Your task to perform on an android device: turn on data saver in the chrome app Image 0: 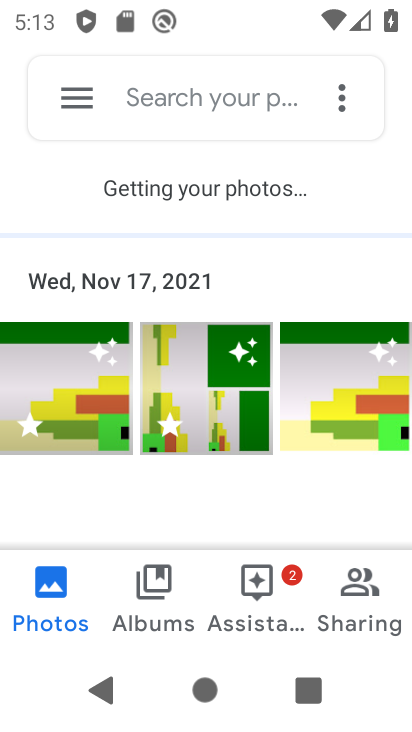
Step 0: press home button
Your task to perform on an android device: turn on data saver in the chrome app Image 1: 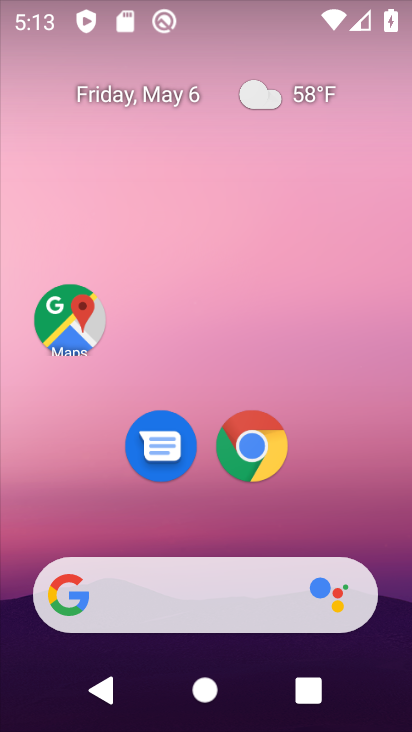
Step 1: click (256, 436)
Your task to perform on an android device: turn on data saver in the chrome app Image 2: 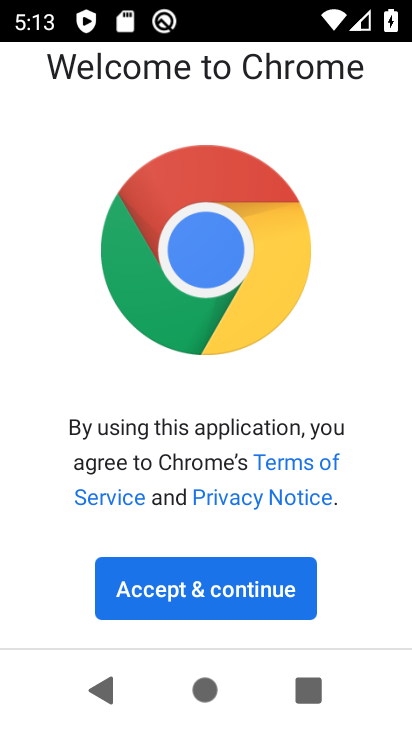
Step 2: click (158, 588)
Your task to perform on an android device: turn on data saver in the chrome app Image 3: 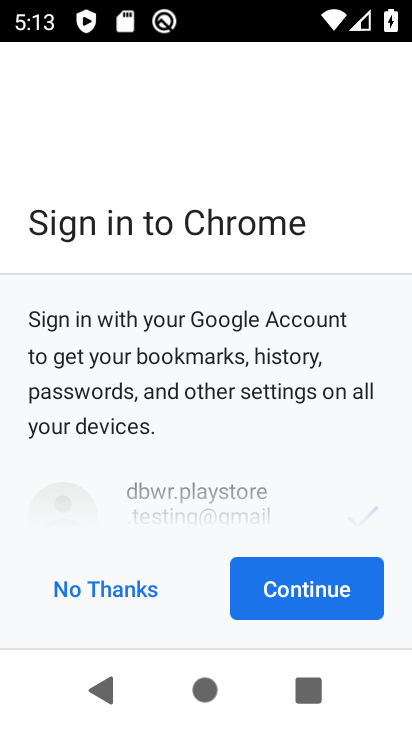
Step 3: click (317, 588)
Your task to perform on an android device: turn on data saver in the chrome app Image 4: 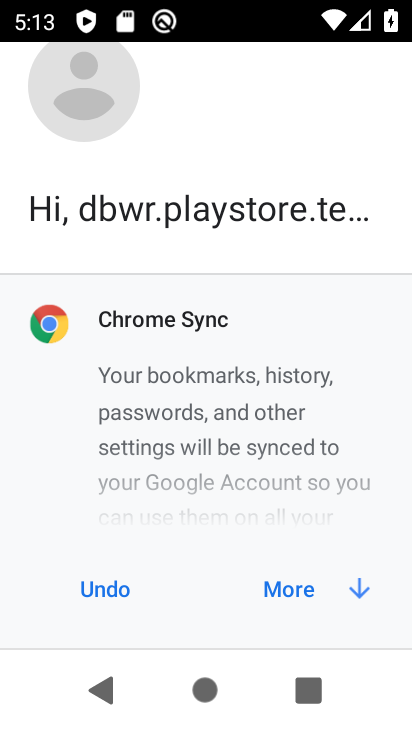
Step 4: click (365, 597)
Your task to perform on an android device: turn on data saver in the chrome app Image 5: 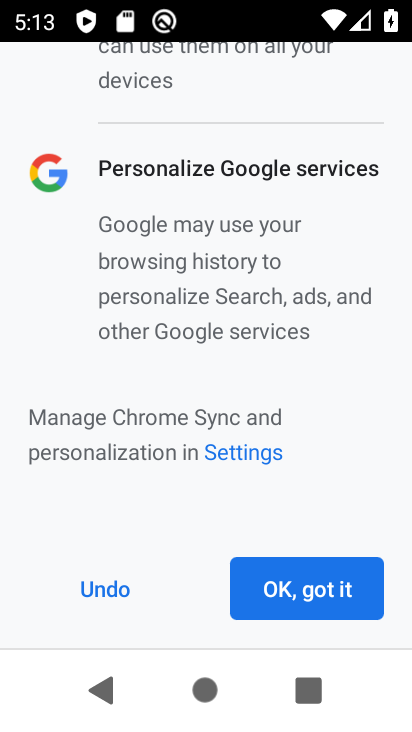
Step 5: click (328, 587)
Your task to perform on an android device: turn on data saver in the chrome app Image 6: 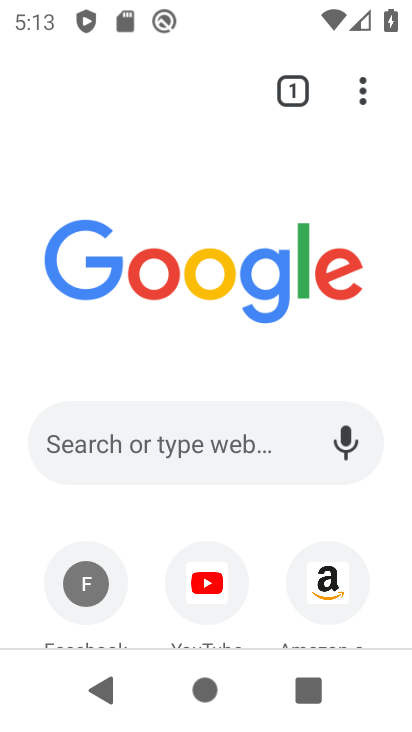
Step 6: click (363, 89)
Your task to perform on an android device: turn on data saver in the chrome app Image 7: 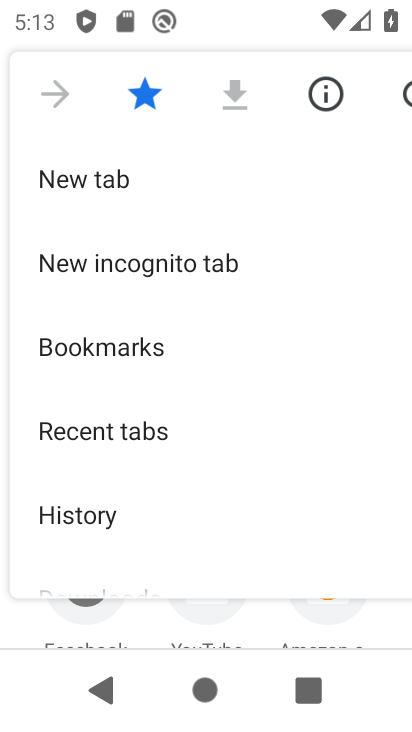
Step 7: drag from (254, 475) to (196, 206)
Your task to perform on an android device: turn on data saver in the chrome app Image 8: 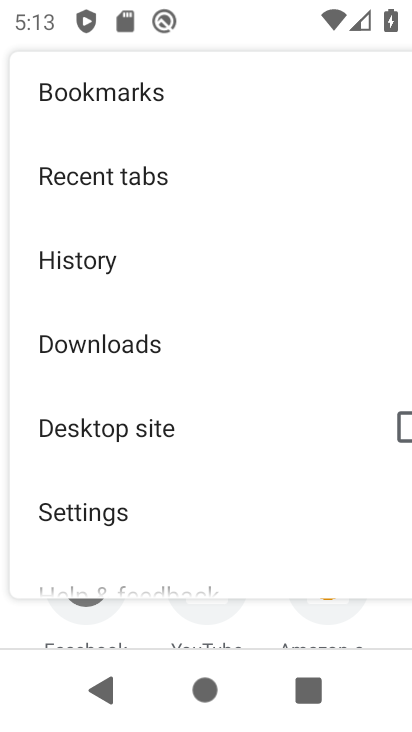
Step 8: click (104, 520)
Your task to perform on an android device: turn on data saver in the chrome app Image 9: 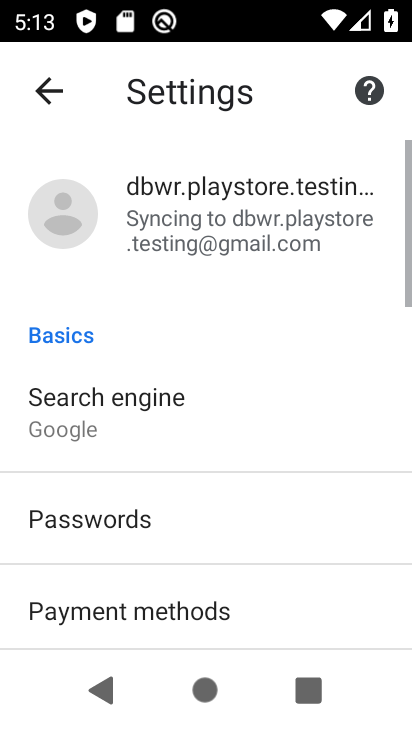
Step 9: drag from (270, 488) to (201, 196)
Your task to perform on an android device: turn on data saver in the chrome app Image 10: 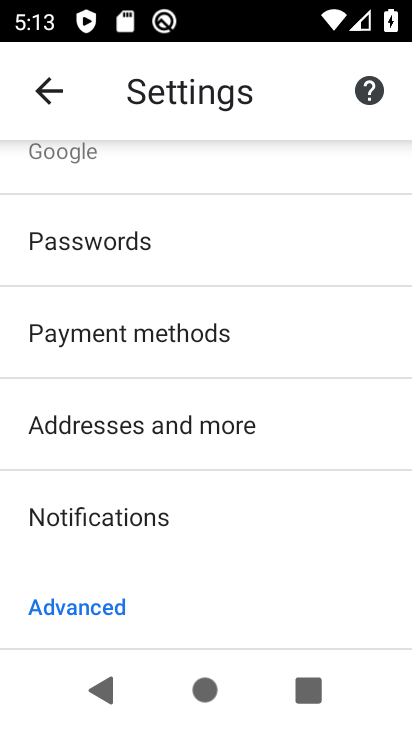
Step 10: drag from (231, 525) to (186, 290)
Your task to perform on an android device: turn on data saver in the chrome app Image 11: 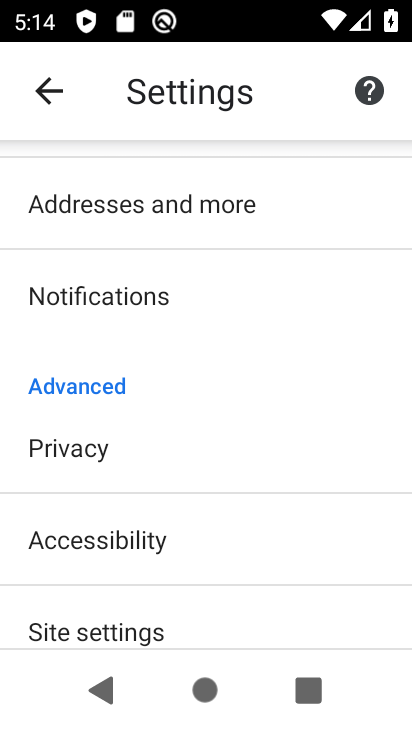
Step 11: drag from (206, 463) to (147, 233)
Your task to perform on an android device: turn on data saver in the chrome app Image 12: 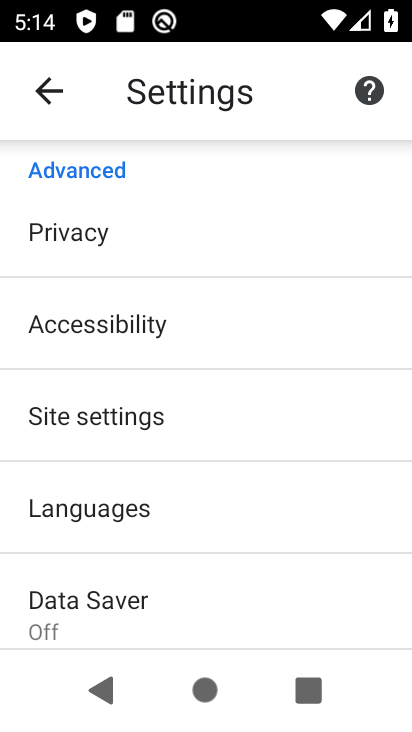
Step 12: click (90, 597)
Your task to perform on an android device: turn on data saver in the chrome app Image 13: 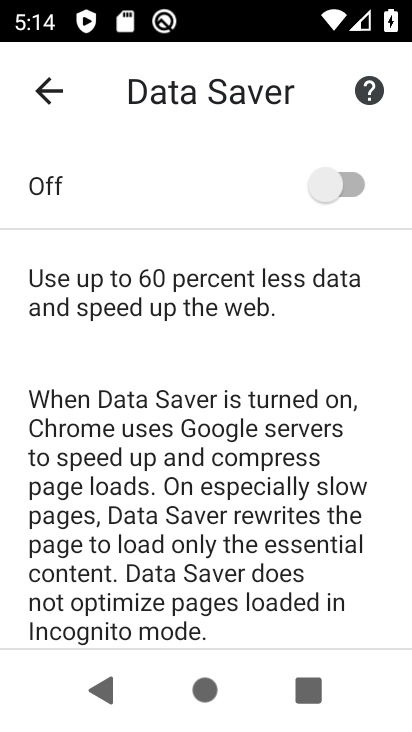
Step 13: click (321, 187)
Your task to perform on an android device: turn on data saver in the chrome app Image 14: 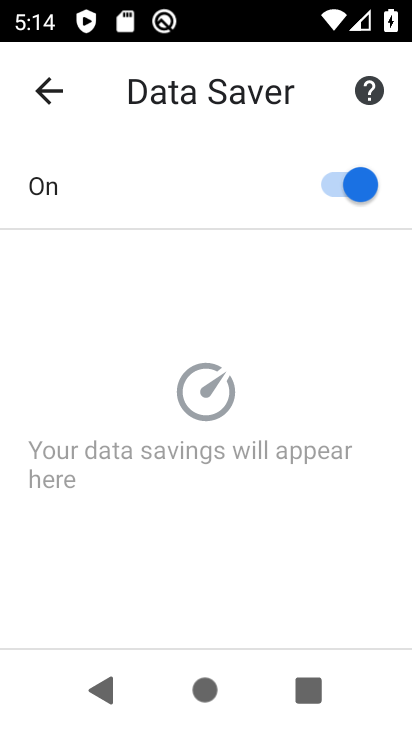
Step 14: task complete